Your task to perform on an android device: Open maps Image 0: 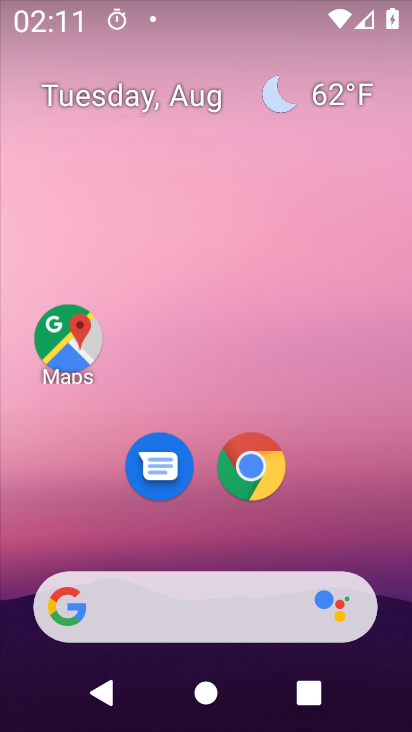
Step 0: drag from (379, 562) to (378, 129)
Your task to perform on an android device: Open maps Image 1: 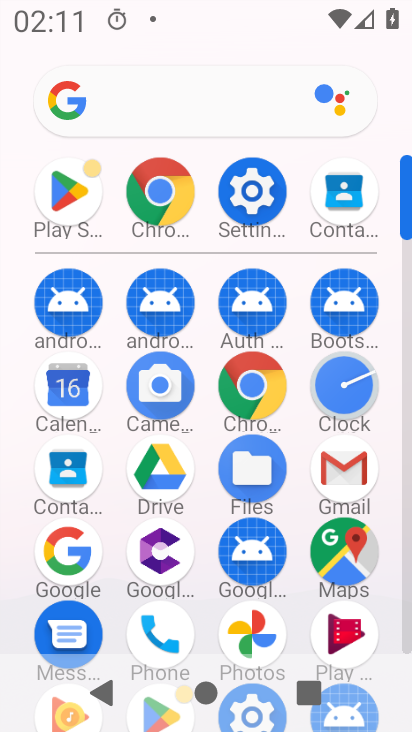
Step 1: click (354, 557)
Your task to perform on an android device: Open maps Image 2: 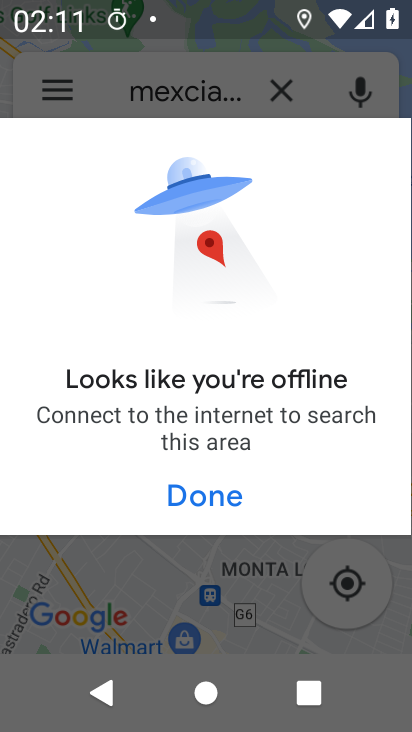
Step 2: task complete